Your task to perform on an android device: turn off airplane mode Image 0: 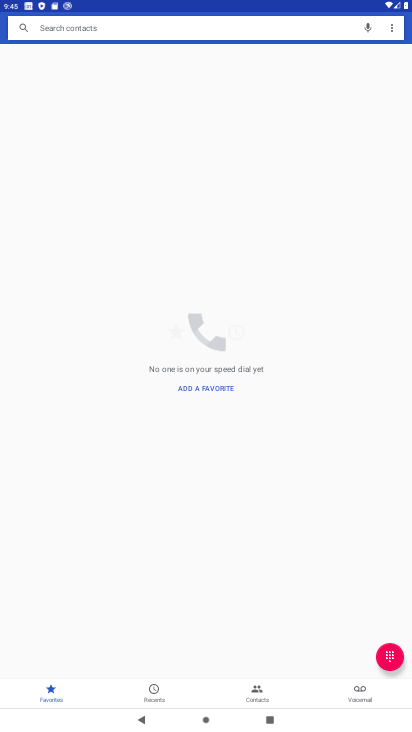
Step 0: press home button
Your task to perform on an android device: turn off airplane mode Image 1: 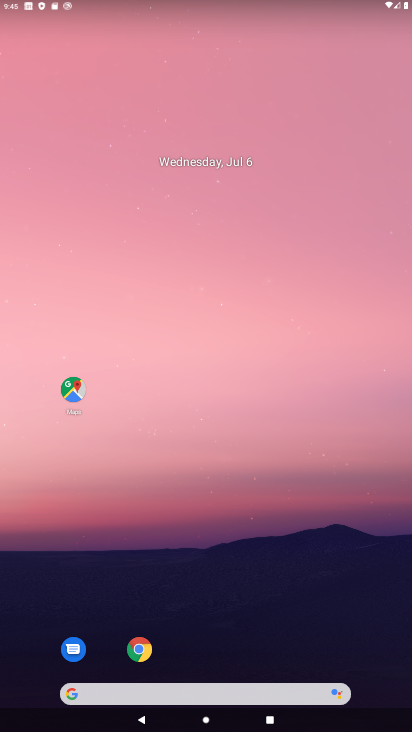
Step 1: drag from (172, 694) to (181, 60)
Your task to perform on an android device: turn off airplane mode Image 2: 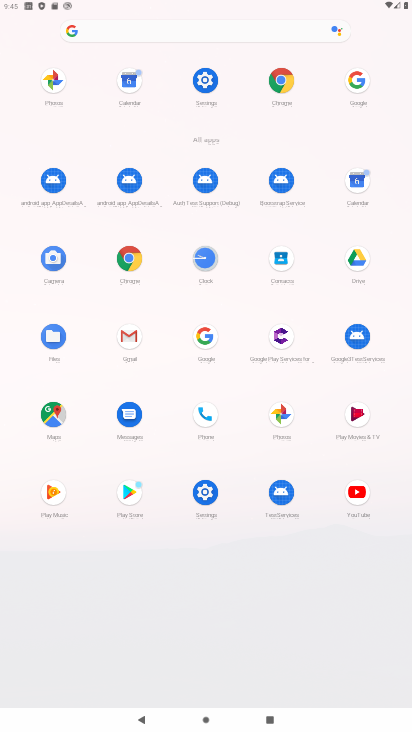
Step 2: click (202, 83)
Your task to perform on an android device: turn off airplane mode Image 3: 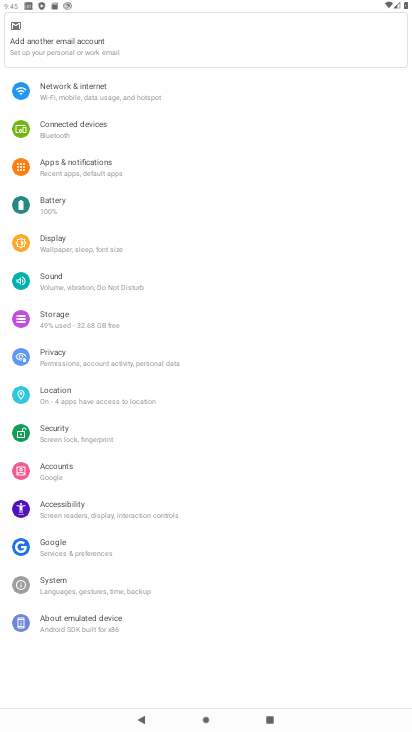
Step 3: click (83, 93)
Your task to perform on an android device: turn off airplane mode Image 4: 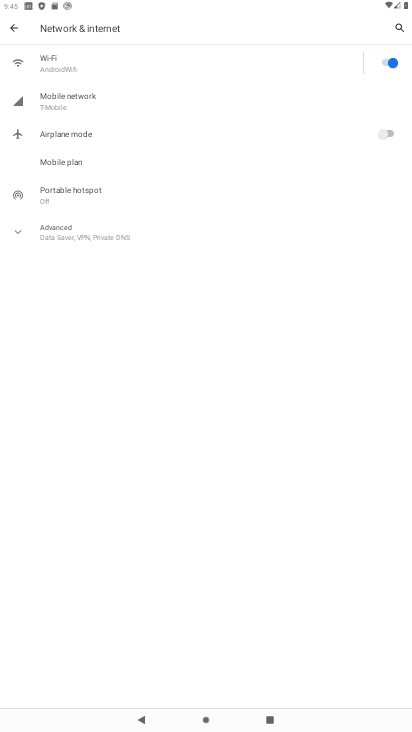
Step 4: task complete